Your task to perform on an android device: Find coffee shops on Maps Image 0: 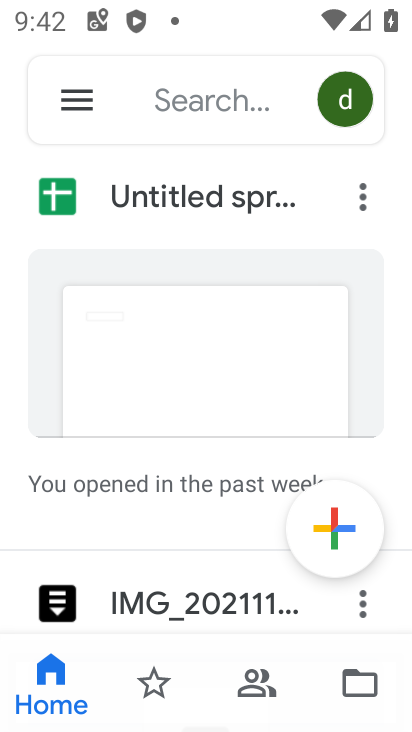
Step 0: press home button
Your task to perform on an android device: Find coffee shops on Maps Image 1: 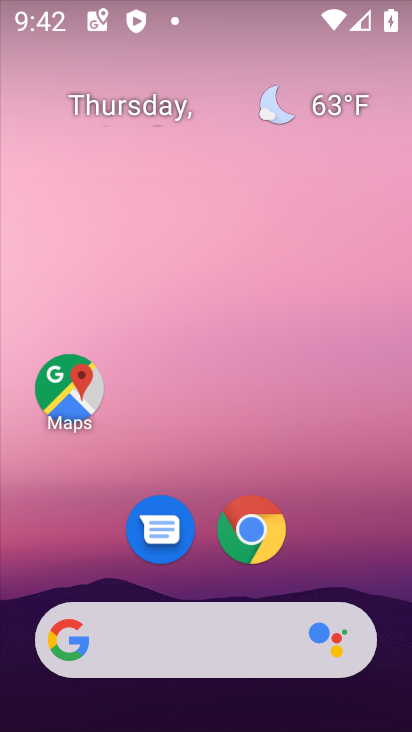
Step 1: click (259, 509)
Your task to perform on an android device: Find coffee shops on Maps Image 2: 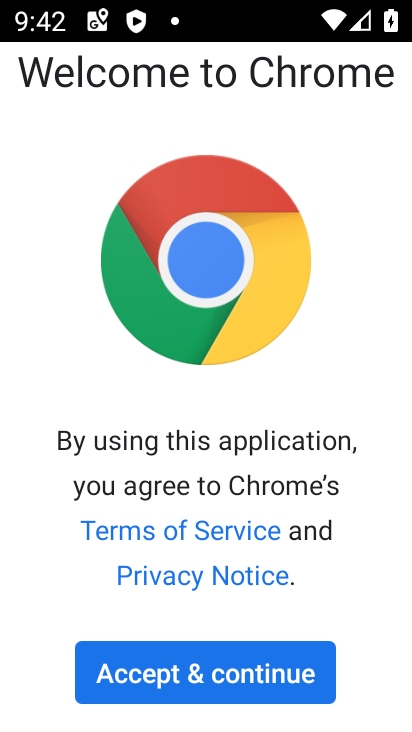
Step 2: click (260, 643)
Your task to perform on an android device: Find coffee shops on Maps Image 3: 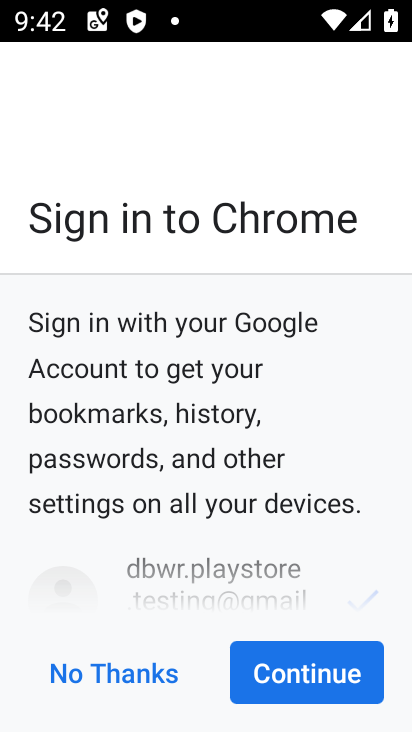
Step 3: click (282, 655)
Your task to perform on an android device: Find coffee shops on Maps Image 4: 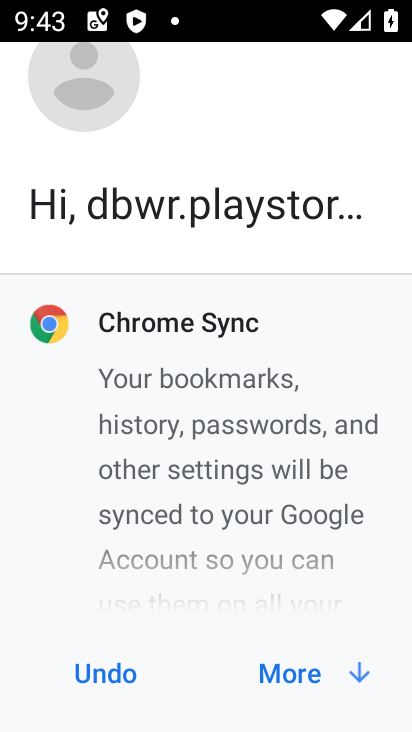
Step 4: click (323, 680)
Your task to perform on an android device: Find coffee shops on Maps Image 5: 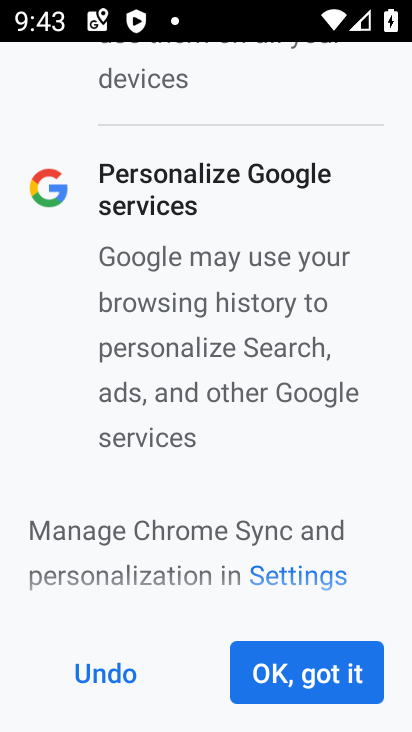
Step 5: press home button
Your task to perform on an android device: Find coffee shops on Maps Image 6: 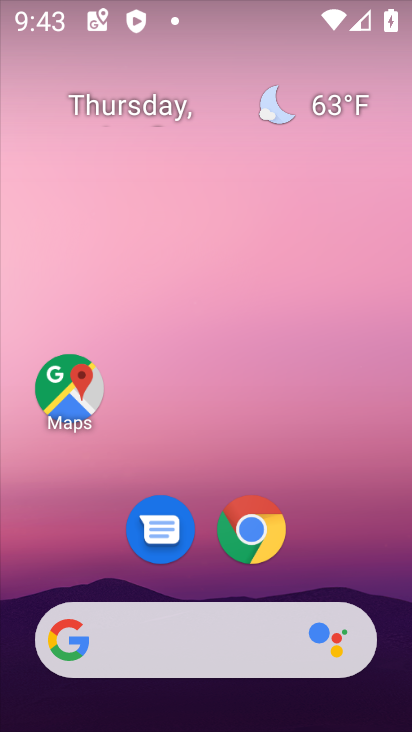
Step 6: click (96, 397)
Your task to perform on an android device: Find coffee shops on Maps Image 7: 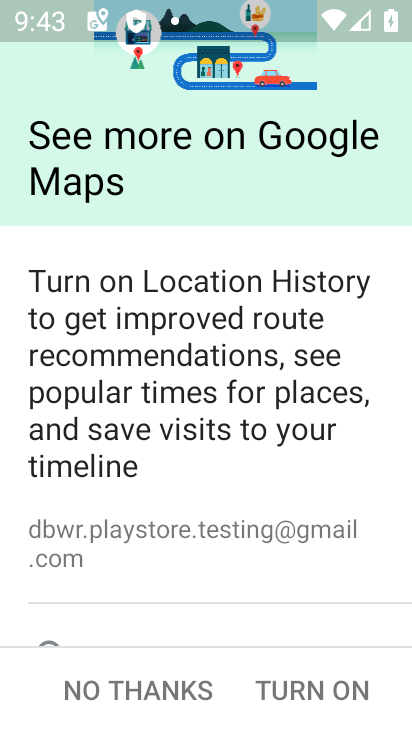
Step 7: click (282, 694)
Your task to perform on an android device: Find coffee shops on Maps Image 8: 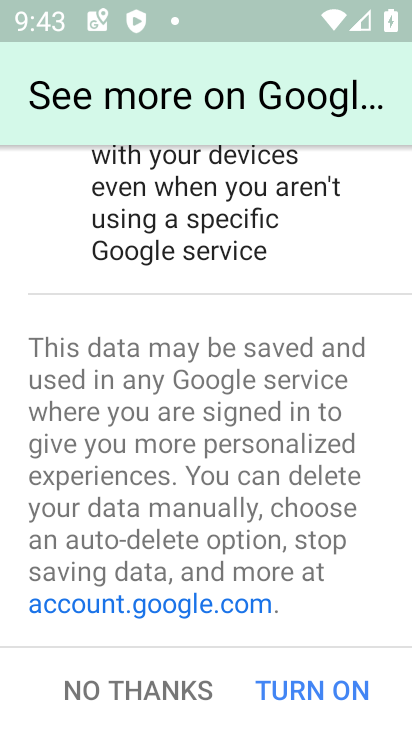
Step 8: click (282, 694)
Your task to perform on an android device: Find coffee shops on Maps Image 9: 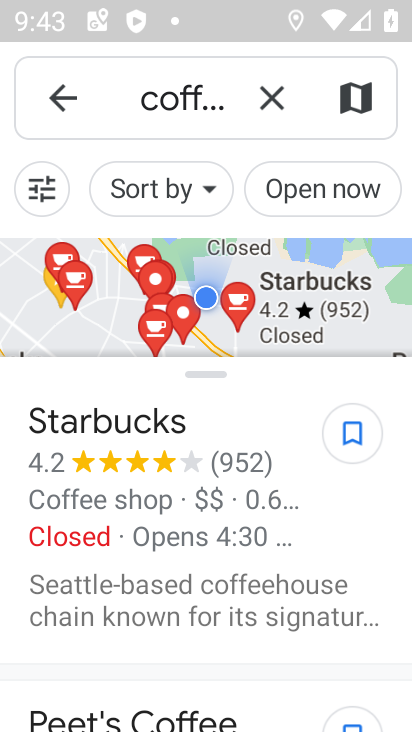
Step 9: task complete